Your task to perform on an android device: What's on my calendar for the rest of the month? Image 0: 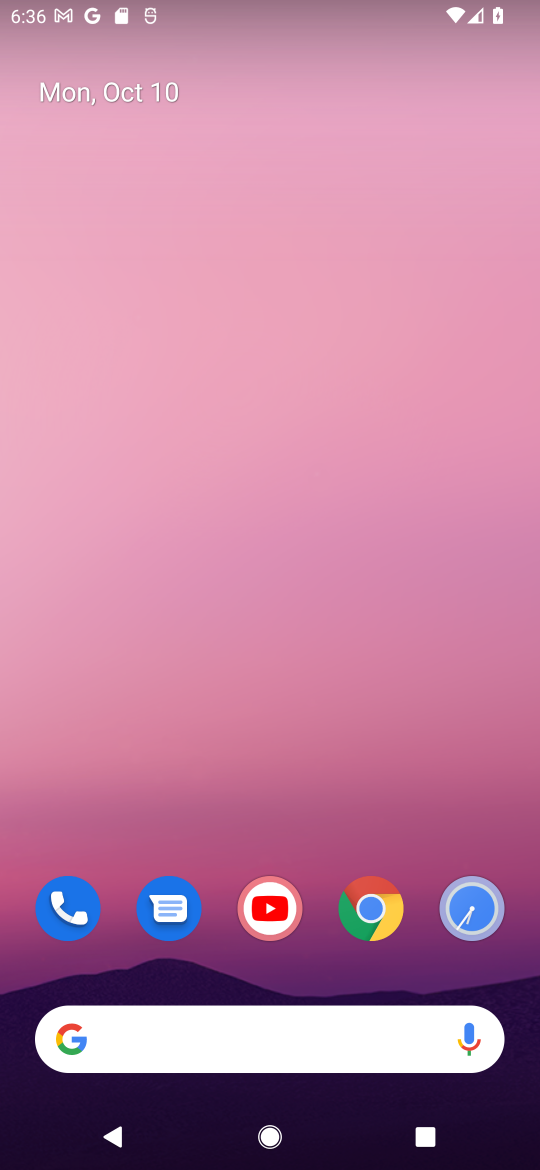
Step 0: drag from (310, 847) to (185, 56)
Your task to perform on an android device: What's on my calendar for the rest of the month? Image 1: 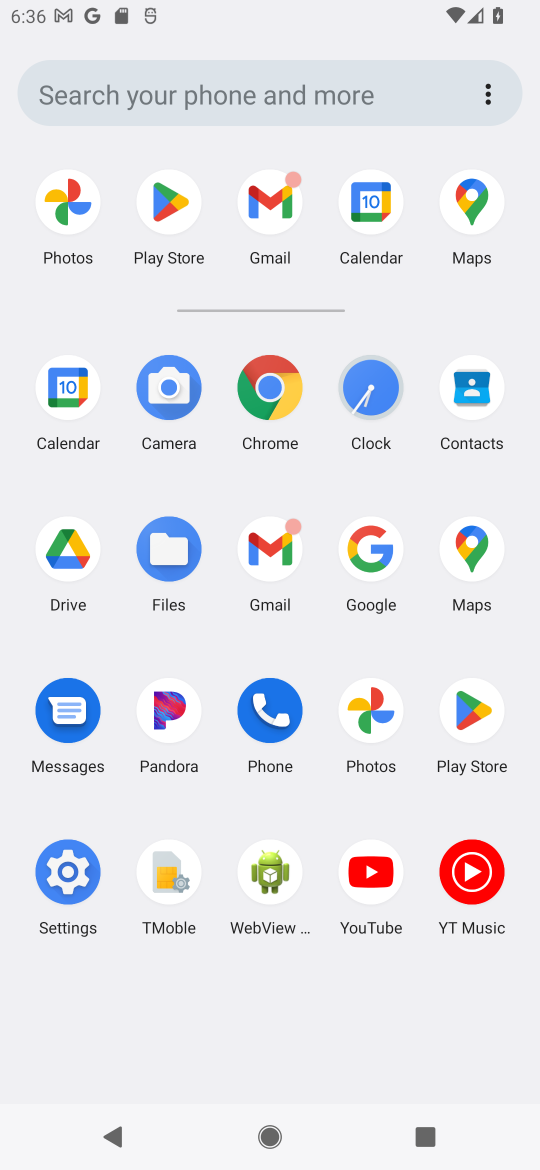
Step 1: click (72, 380)
Your task to perform on an android device: What's on my calendar for the rest of the month? Image 2: 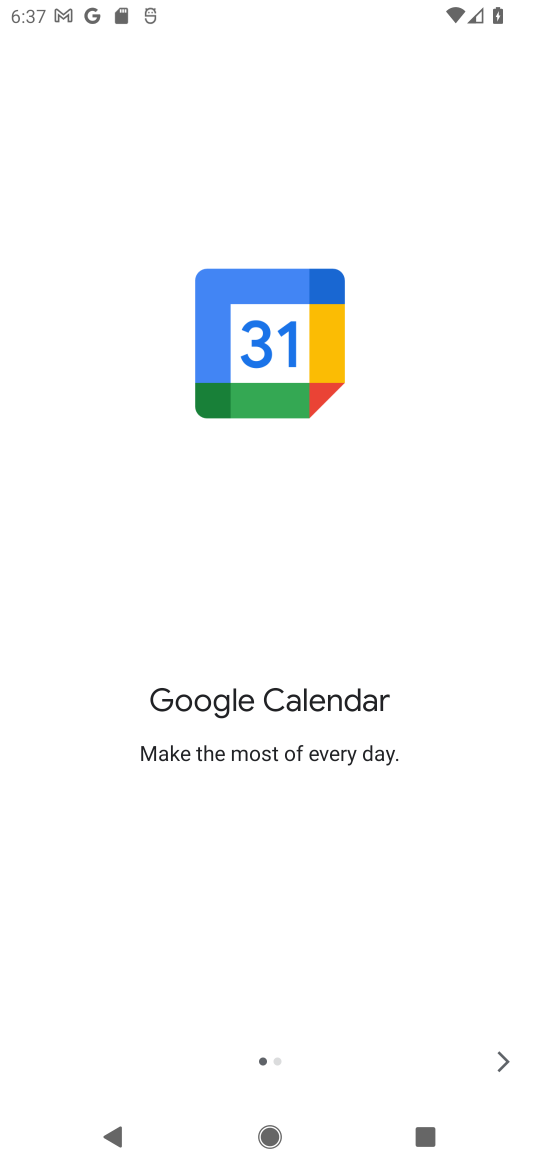
Step 2: click (517, 1063)
Your task to perform on an android device: What's on my calendar for the rest of the month? Image 3: 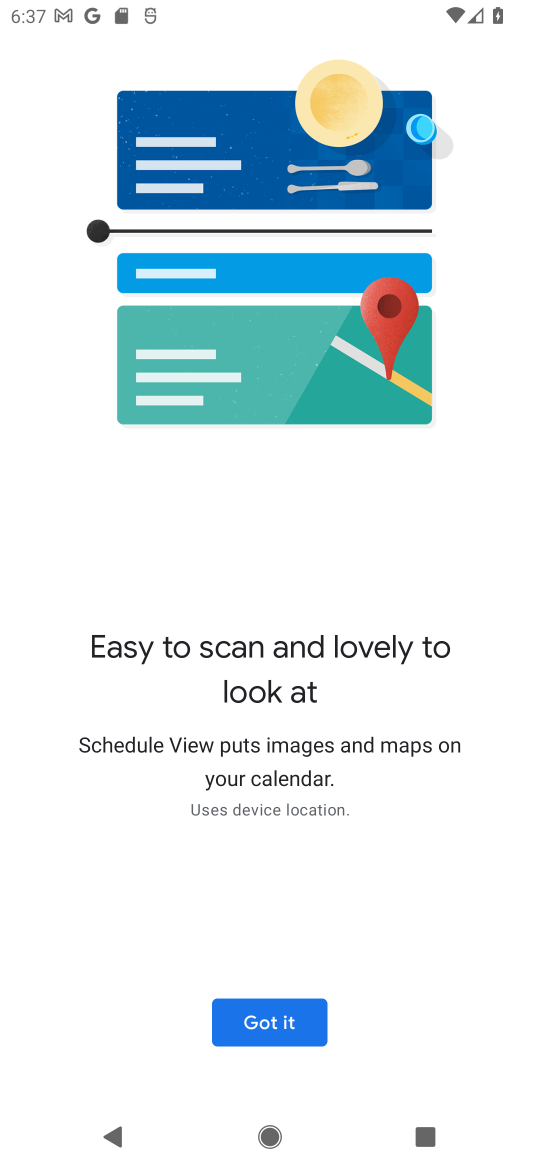
Step 3: click (517, 1063)
Your task to perform on an android device: What's on my calendar for the rest of the month? Image 4: 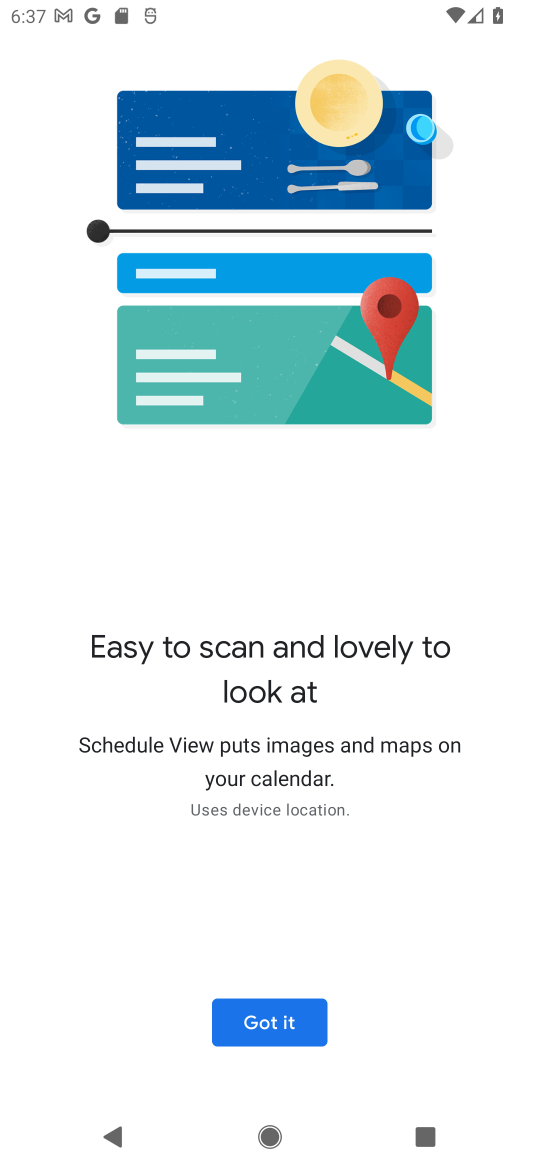
Step 4: click (294, 1016)
Your task to perform on an android device: What's on my calendar for the rest of the month? Image 5: 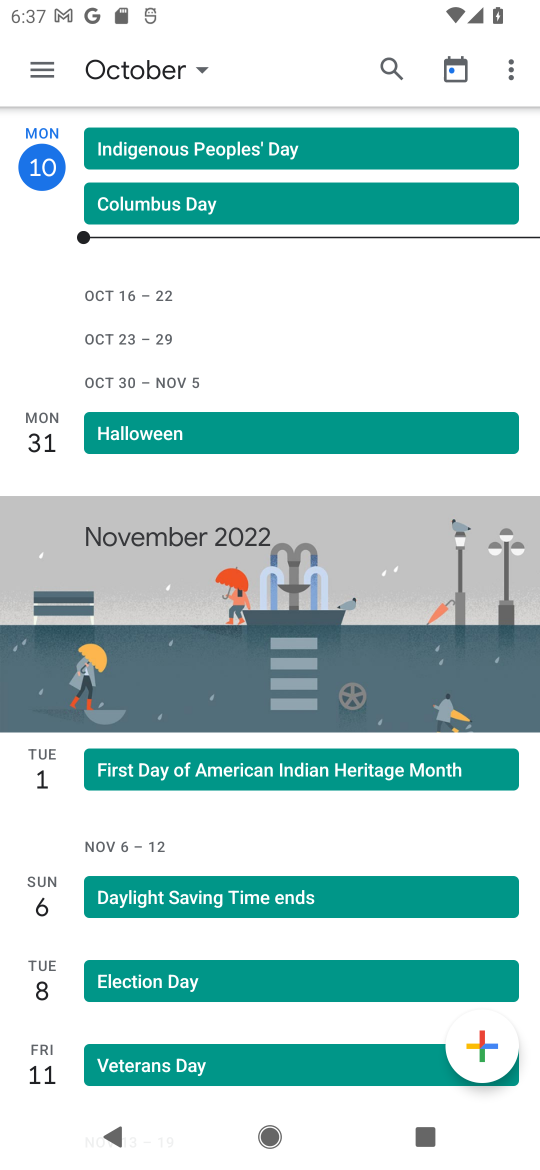
Step 5: click (164, 57)
Your task to perform on an android device: What's on my calendar for the rest of the month? Image 6: 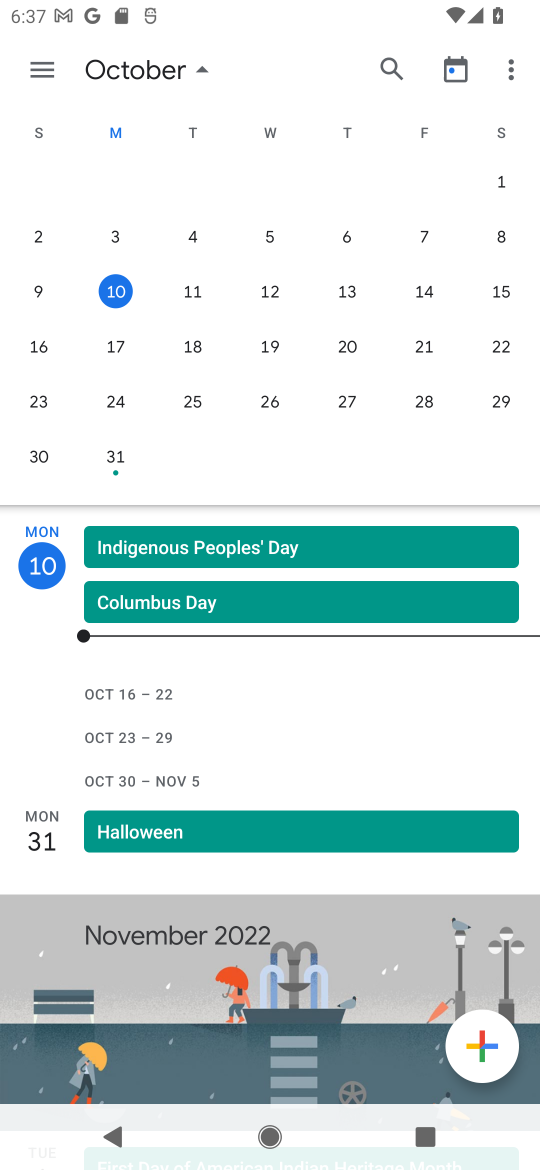
Step 6: task complete